Your task to perform on an android device: Open Amazon Image 0: 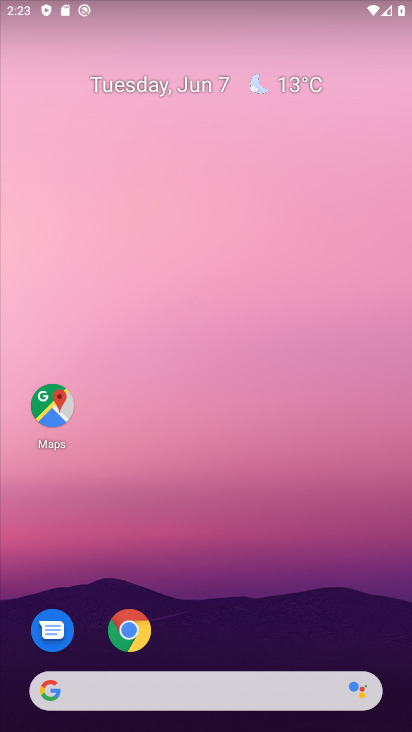
Step 0: click (150, 625)
Your task to perform on an android device: Open Amazon Image 1: 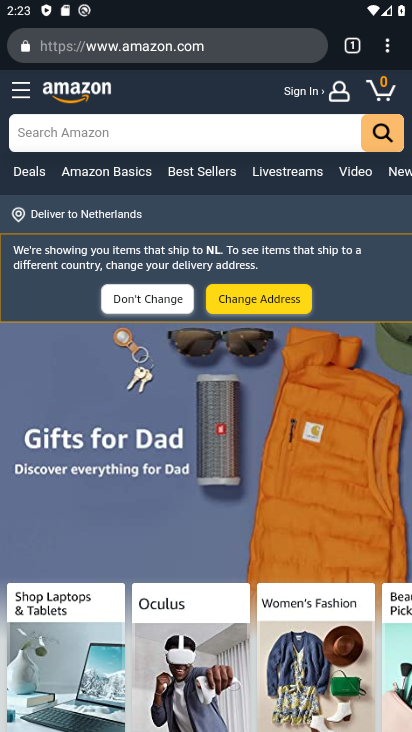
Step 1: task complete